Your task to perform on an android device: turn on the 12-hour format for clock Image 0: 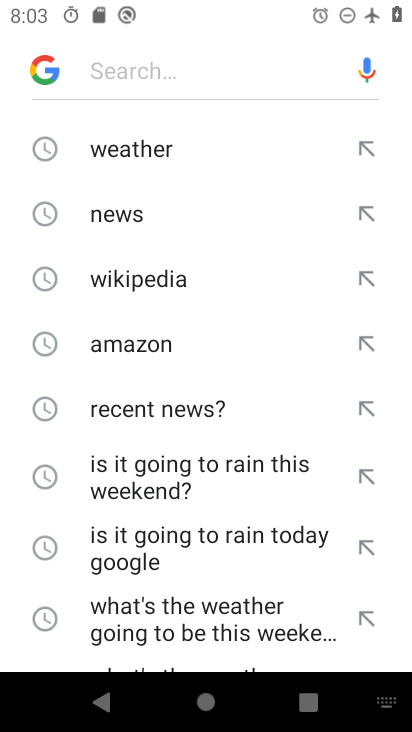
Step 0: press home button
Your task to perform on an android device: turn on the 12-hour format for clock Image 1: 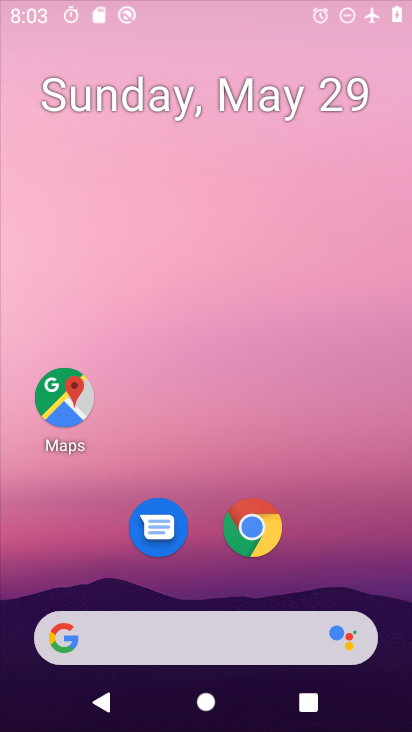
Step 1: drag from (349, 587) to (300, 9)
Your task to perform on an android device: turn on the 12-hour format for clock Image 2: 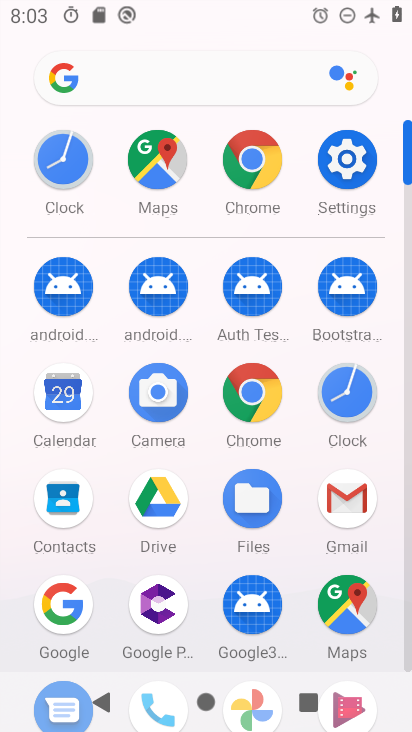
Step 2: click (369, 399)
Your task to perform on an android device: turn on the 12-hour format for clock Image 3: 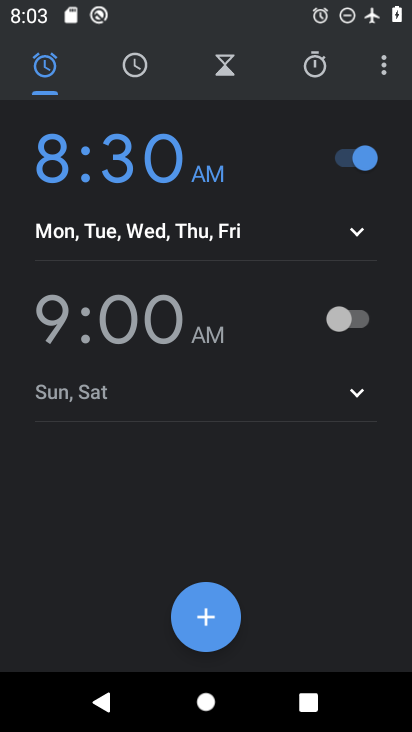
Step 3: click (379, 62)
Your task to perform on an android device: turn on the 12-hour format for clock Image 4: 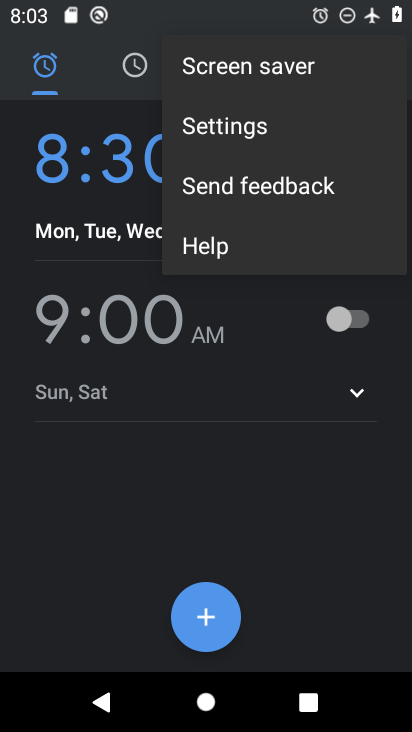
Step 4: click (276, 120)
Your task to perform on an android device: turn on the 12-hour format for clock Image 5: 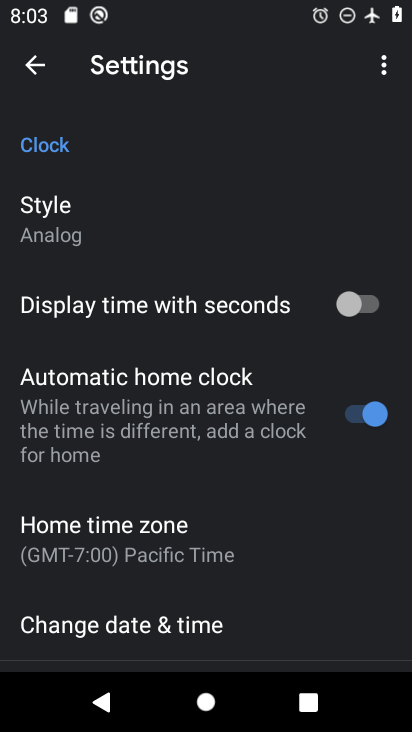
Step 5: drag from (114, 619) to (191, 129)
Your task to perform on an android device: turn on the 12-hour format for clock Image 6: 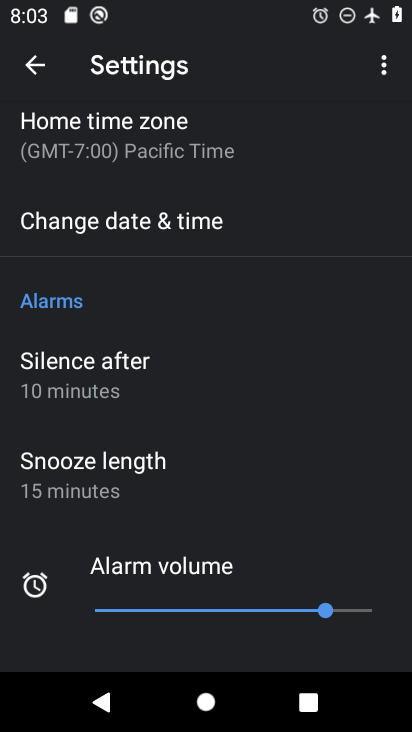
Step 6: click (128, 238)
Your task to perform on an android device: turn on the 12-hour format for clock Image 7: 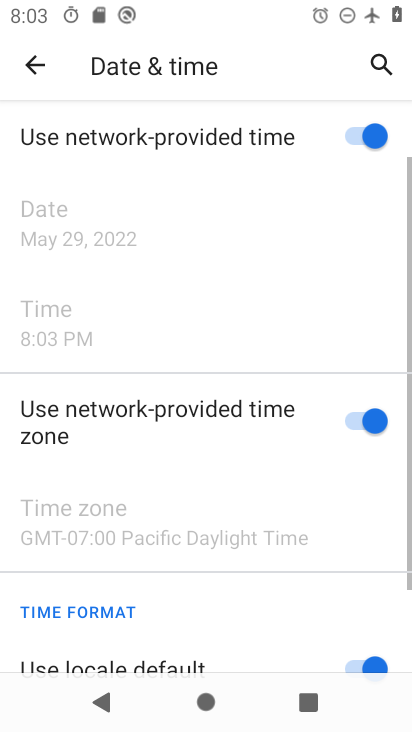
Step 7: task complete